Your task to perform on an android device: Turn off the flashlight Image 0: 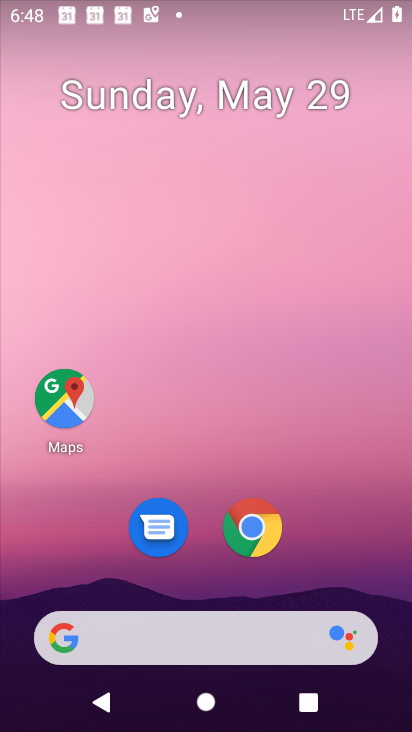
Step 0: drag from (381, 619) to (280, 41)
Your task to perform on an android device: Turn off the flashlight Image 1: 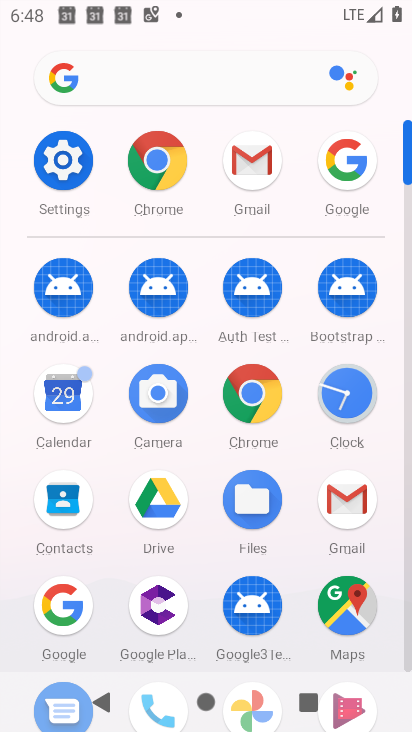
Step 1: click (92, 157)
Your task to perform on an android device: Turn off the flashlight Image 2: 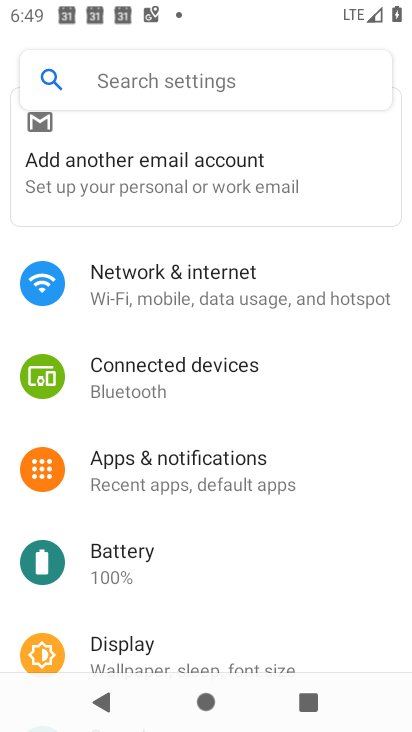
Step 2: task complete